Your task to perform on an android device: Turn off the flashlight Image 0: 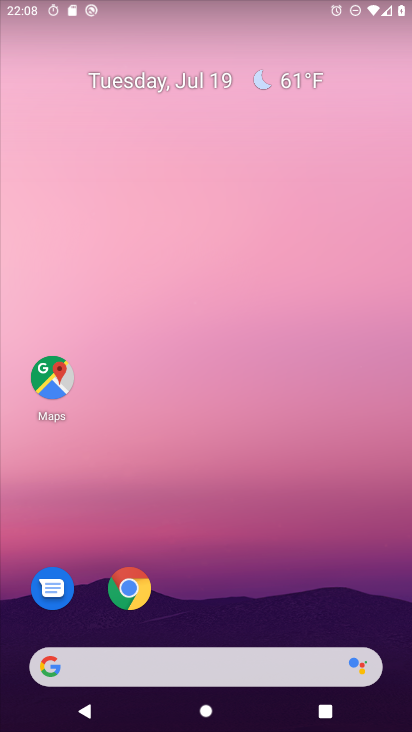
Step 0: press home button
Your task to perform on an android device: Turn off the flashlight Image 1: 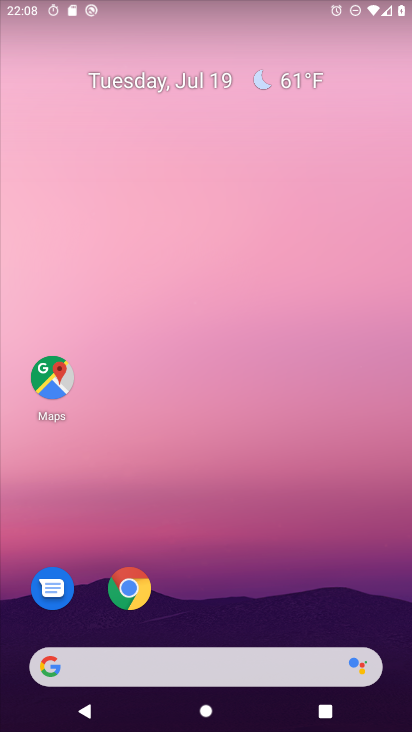
Step 1: drag from (226, 611) to (248, 95)
Your task to perform on an android device: Turn off the flashlight Image 2: 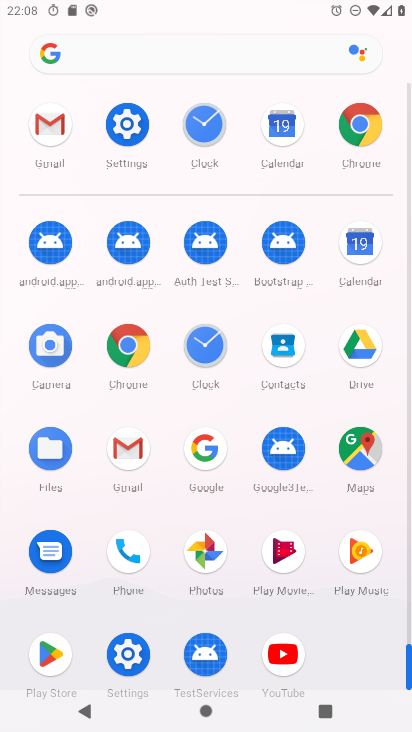
Step 2: click (127, 119)
Your task to perform on an android device: Turn off the flashlight Image 3: 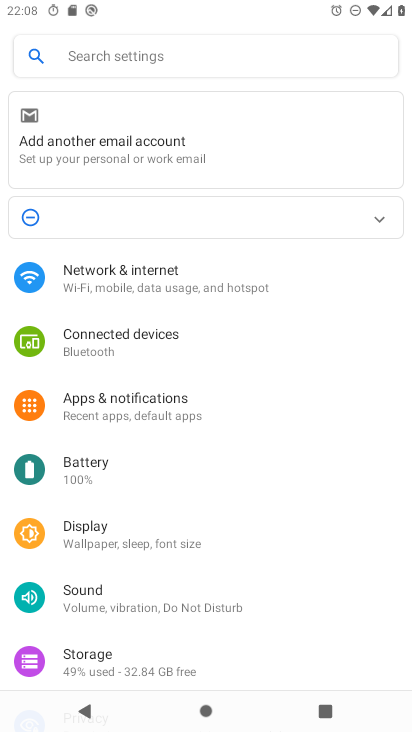
Step 3: click (106, 48)
Your task to perform on an android device: Turn off the flashlight Image 4: 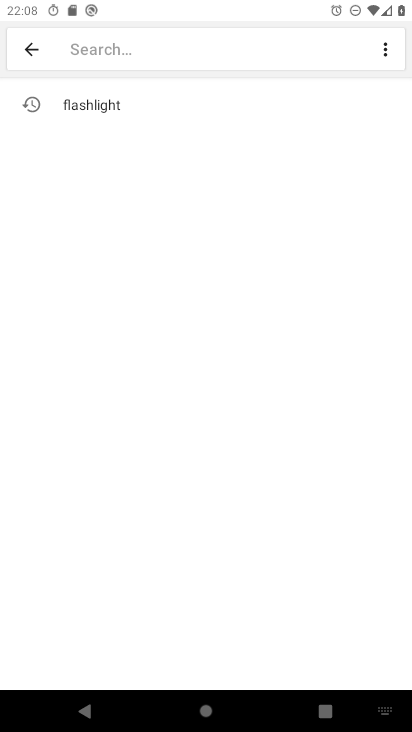
Step 4: type "f"
Your task to perform on an android device: Turn off the flashlight Image 5: 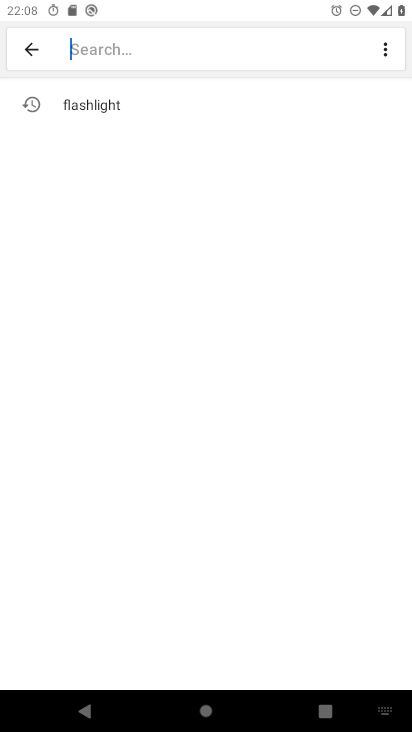
Step 5: click (93, 93)
Your task to perform on an android device: Turn off the flashlight Image 6: 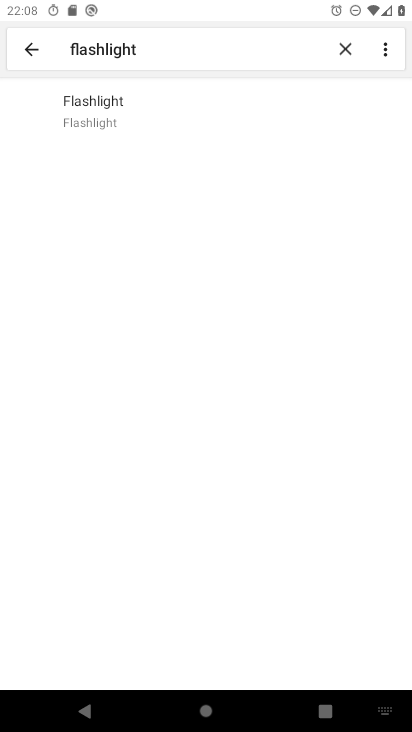
Step 6: click (105, 118)
Your task to perform on an android device: Turn off the flashlight Image 7: 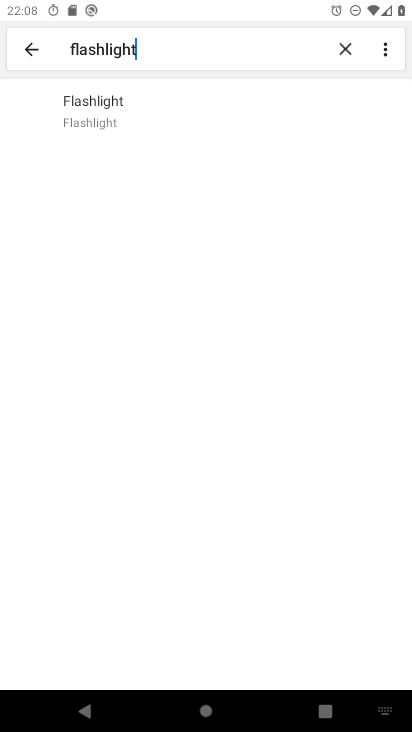
Step 7: click (134, 104)
Your task to perform on an android device: Turn off the flashlight Image 8: 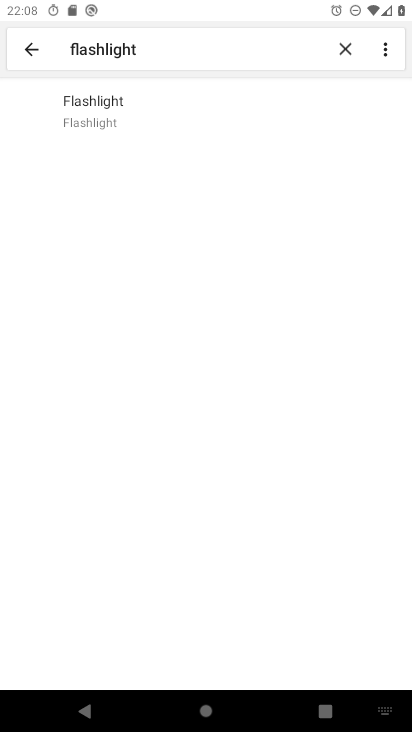
Step 8: click (143, 104)
Your task to perform on an android device: Turn off the flashlight Image 9: 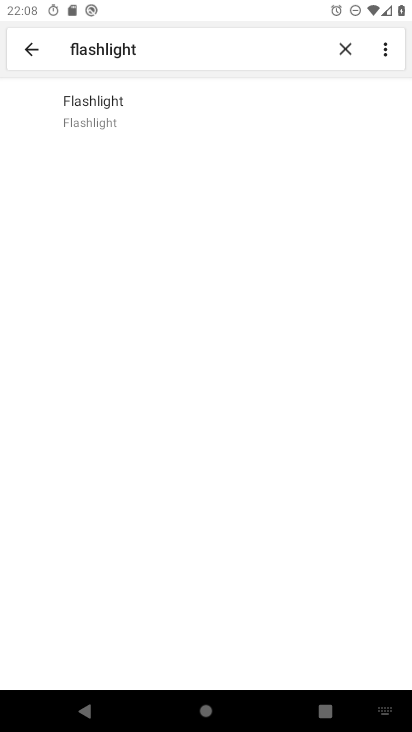
Step 9: task complete